Your task to perform on an android device: remove spam from my inbox in the gmail app Image 0: 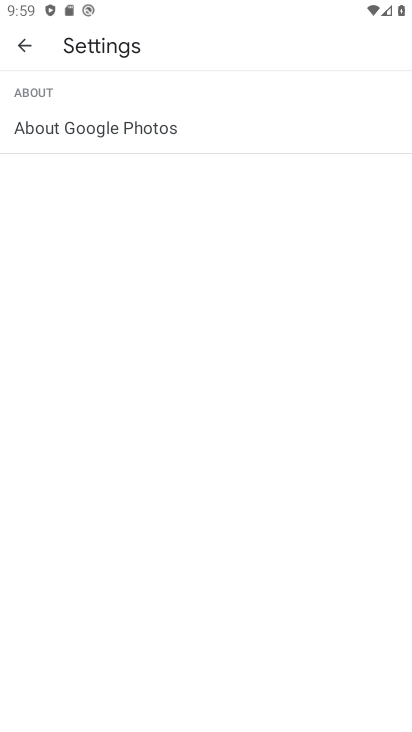
Step 0: press home button
Your task to perform on an android device: remove spam from my inbox in the gmail app Image 1: 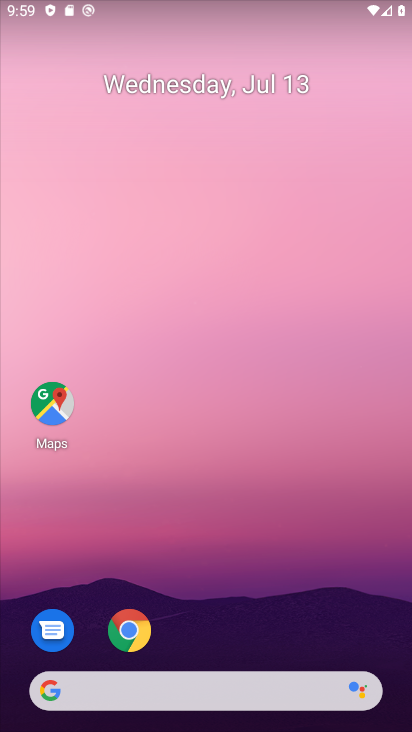
Step 1: drag from (262, 595) to (287, 3)
Your task to perform on an android device: remove spam from my inbox in the gmail app Image 2: 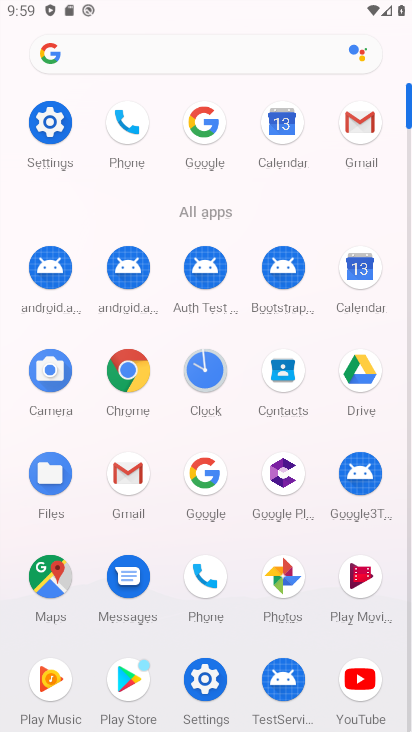
Step 2: click (116, 478)
Your task to perform on an android device: remove spam from my inbox in the gmail app Image 3: 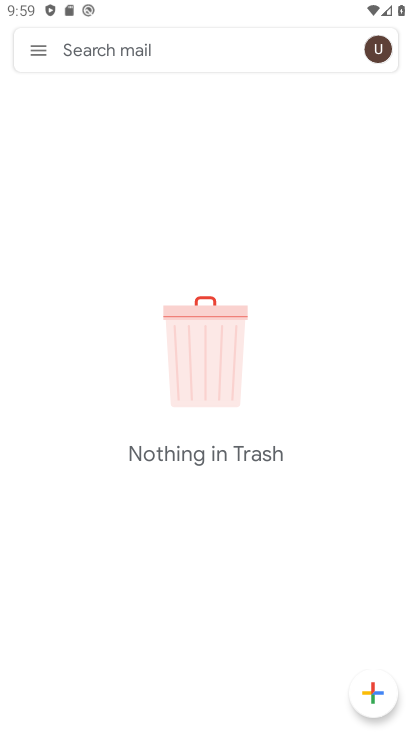
Step 3: click (40, 60)
Your task to perform on an android device: remove spam from my inbox in the gmail app Image 4: 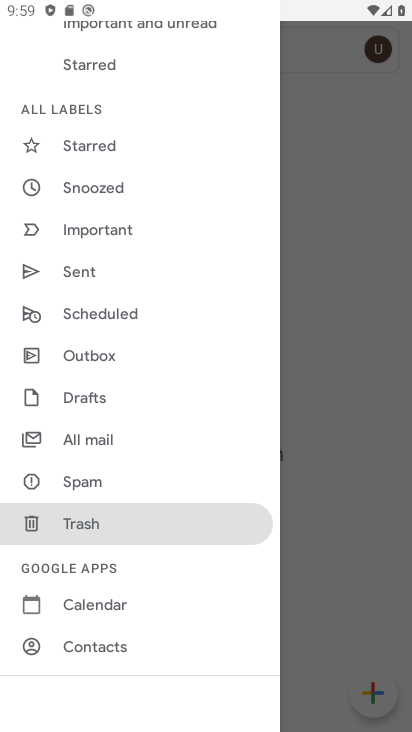
Step 4: click (101, 478)
Your task to perform on an android device: remove spam from my inbox in the gmail app Image 5: 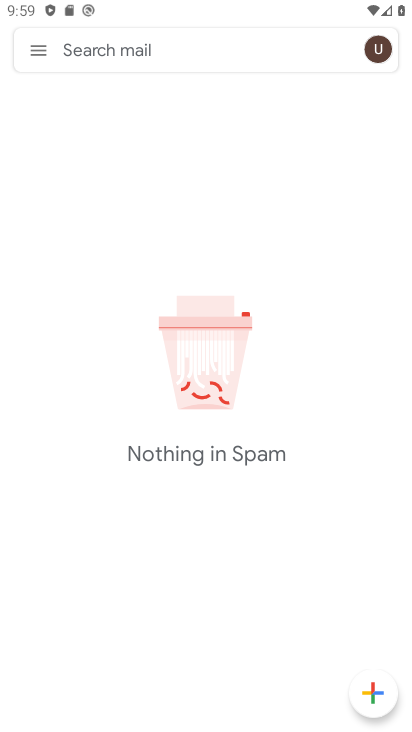
Step 5: task complete